Your task to perform on an android device: Go to internet settings Image 0: 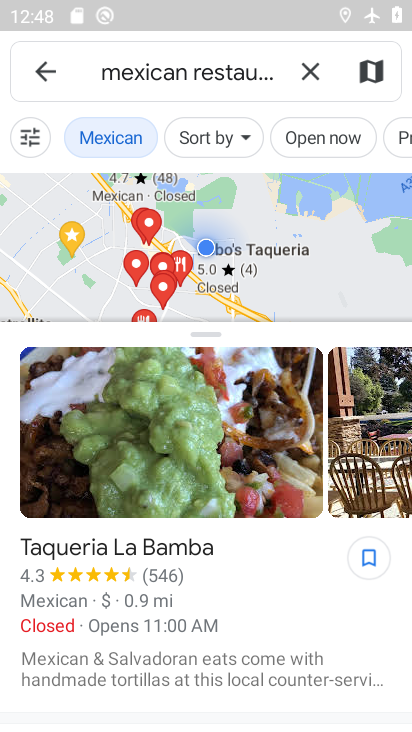
Step 0: press home button
Your task to perform on an android device: Go to internet settings Image 1: 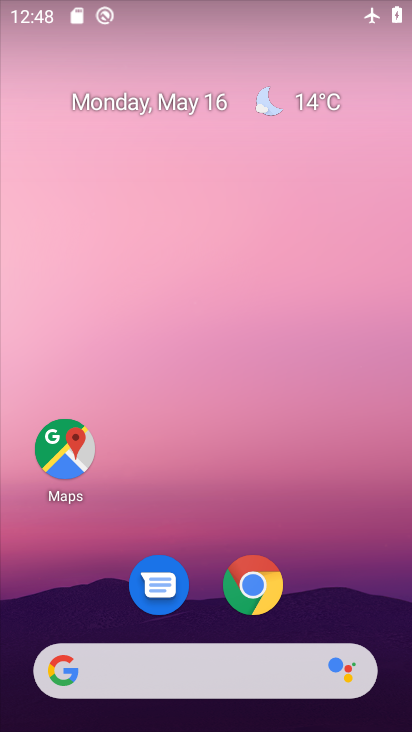
Step 1: drag from (252, 472) to (265, 53)
Your task to perform on an android device: Go to internet settings Image 2: 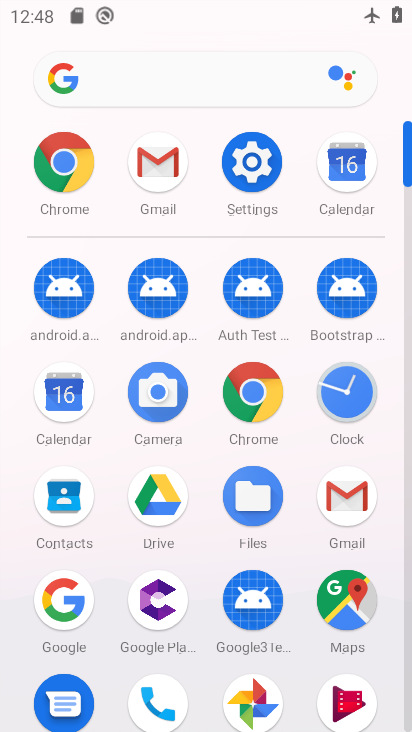
Step 2: click (254, 154)
Your task to perform on an android device: Go to internet settings Image 3: 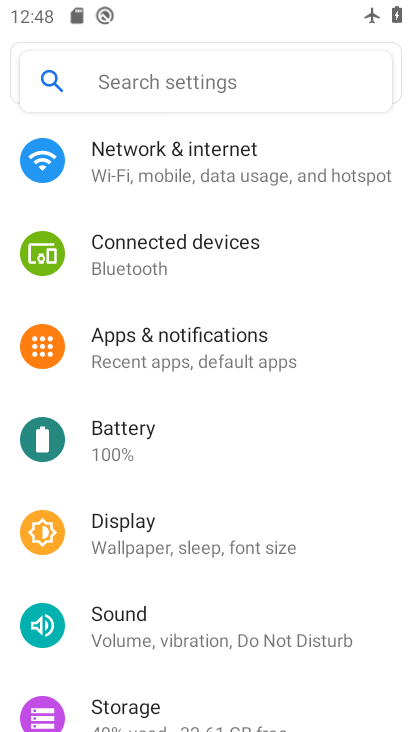
Step 3: click (254, 168)
Your task to perform on an android device: Go to internet settings Image 4: 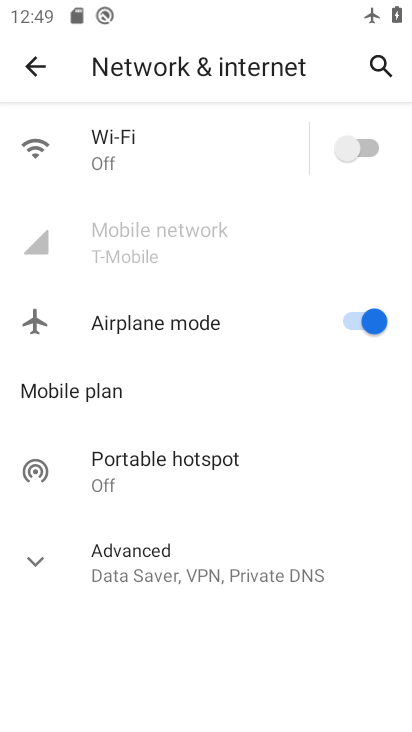
Step 4: task complete